Your task to perform on an android device: change the clock style Image 0: 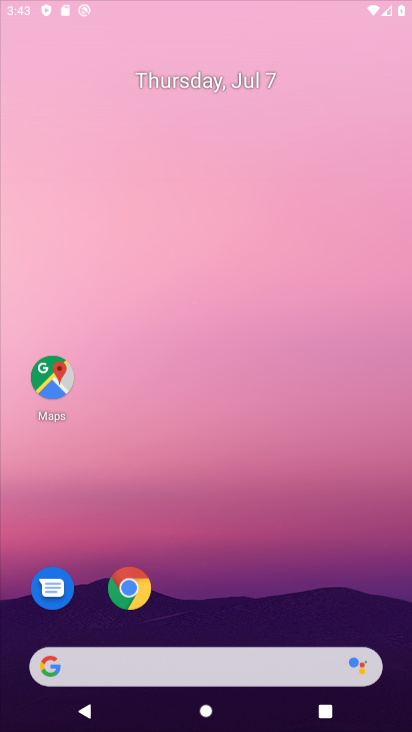
Step 0: press home button
Your task to perform on an android device: change the clock style Image 1: 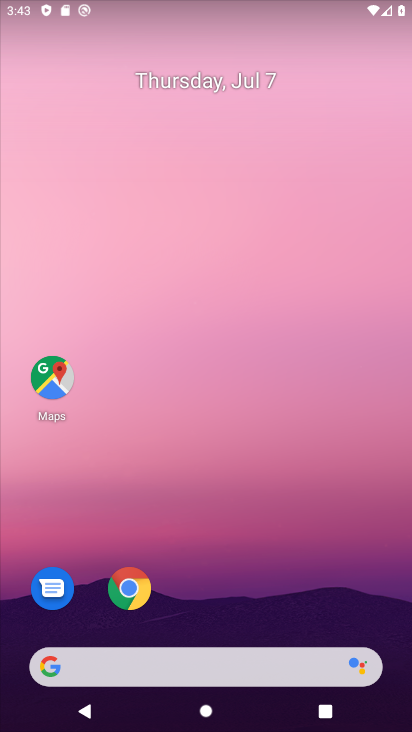
Step 1: drag from (233, 626) to (229, 272)
Your task to perform on an android device: change the clock style Image 2: 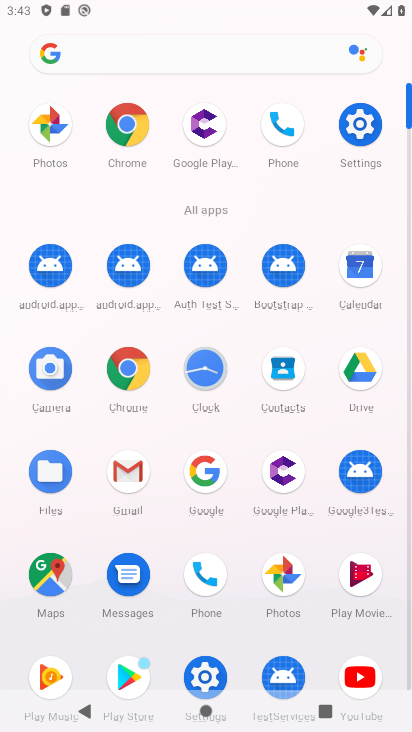
Step 2: click (204, 378)
Your task to perform on an android device: change the clock style Image 3: 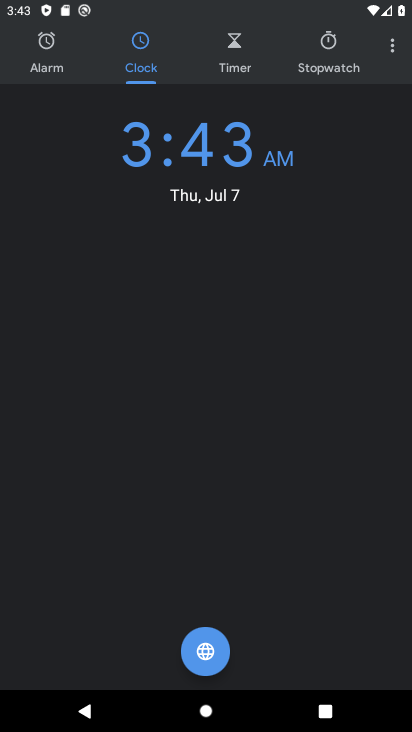
Step 3: click (387, 54)
Your task to perform on an android device: change the clock style Image 4: 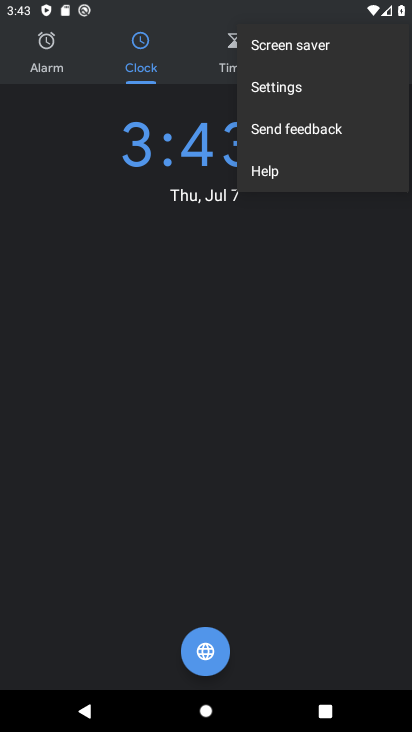
Step 4: click (271, 93)
Your task to perform on an android device: change the clock style Image 5: 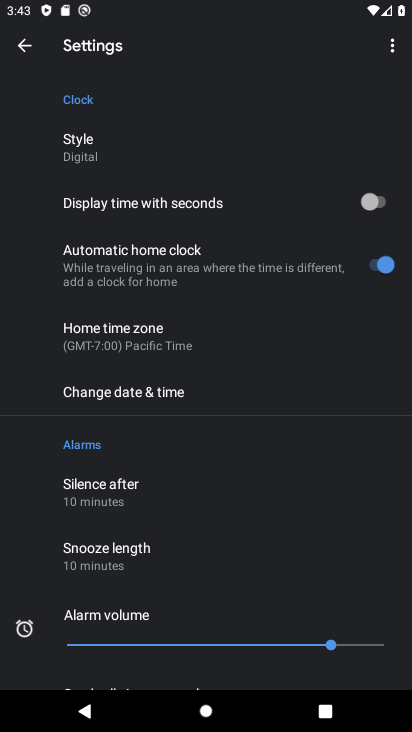
Step 5: click (81, 156)
Your task to perform on an android device: change the clock style Image 6: 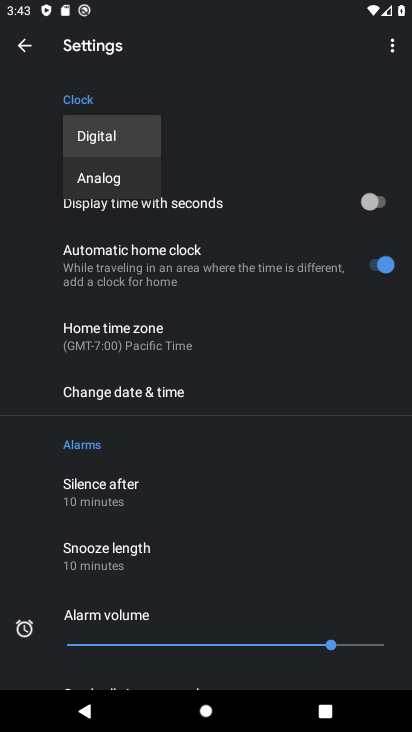
Step 6: click (92, 186)
Your task to perform on an android device: change the clock style Image 7: 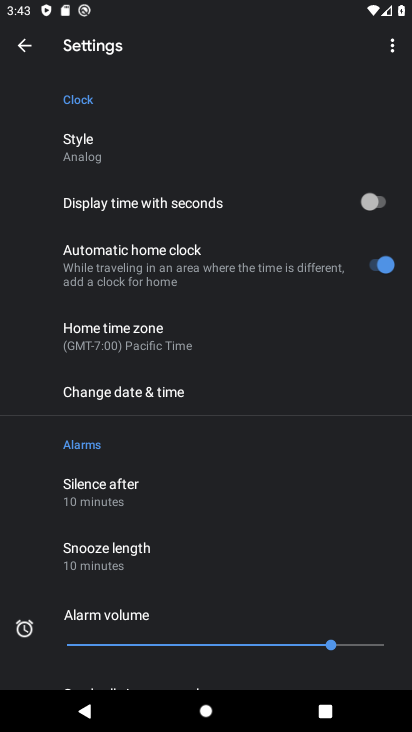
Step 7: task complete